Your task to perform on an android device: check google app version Image 0: 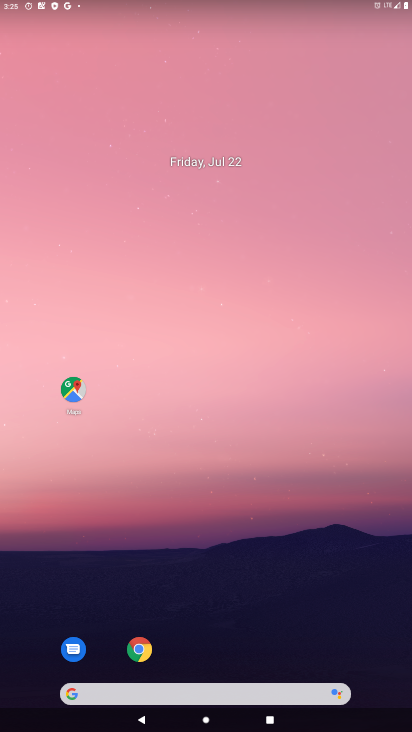
Step 0: drag from (274, 501) to (300, 120)
Your task to perform on an android device: check google app version Image 1: 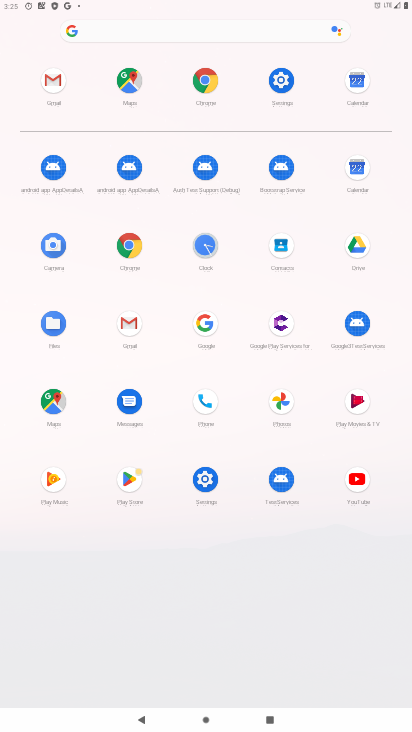
Step 1: click (200, 320)
Your task to perform on an android device: check google app version Image 2: 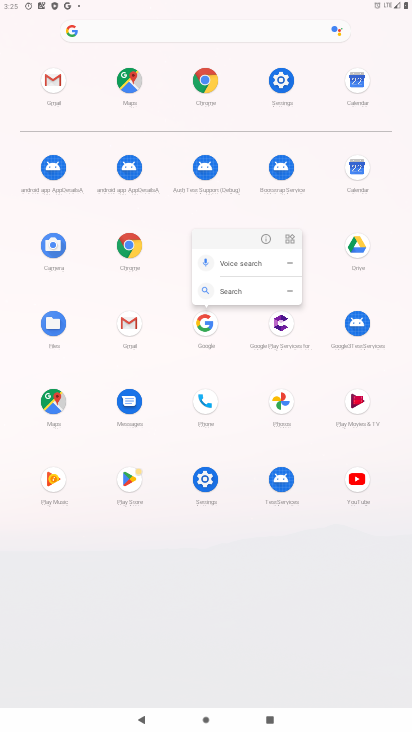
Step 2: click (264, 235)
Your task to perform on an android device: check google app version Image 3: 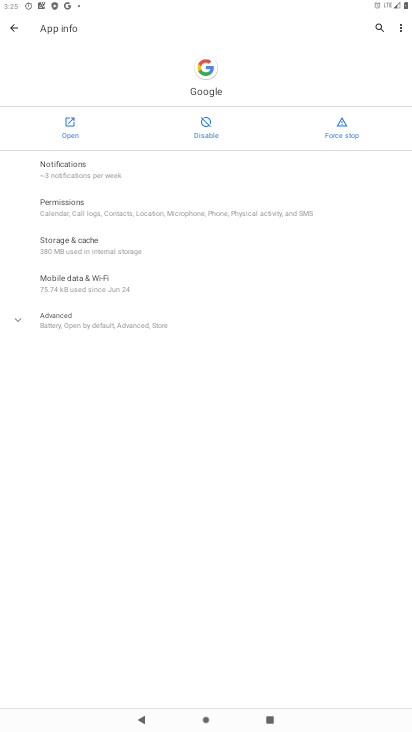
Step 3: click (100, 324)
Your task to perform on an android device: check google app version Image 4: 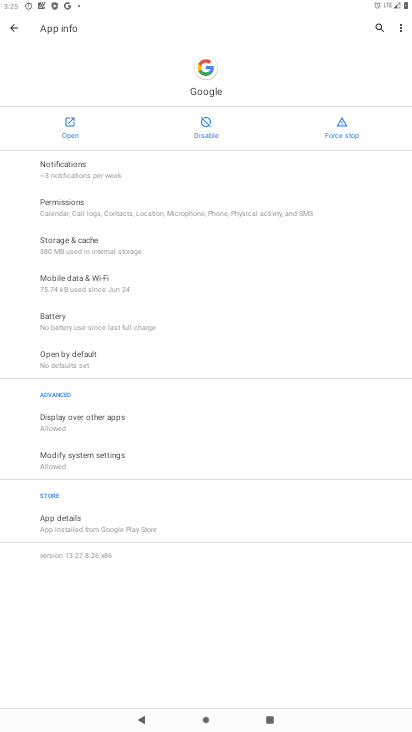
Step 4: task complete